Your task to perform on an android device: Clear the shopping cart on target. Add "asus zenbook" to the cart on target, then select checkout. Image 0: 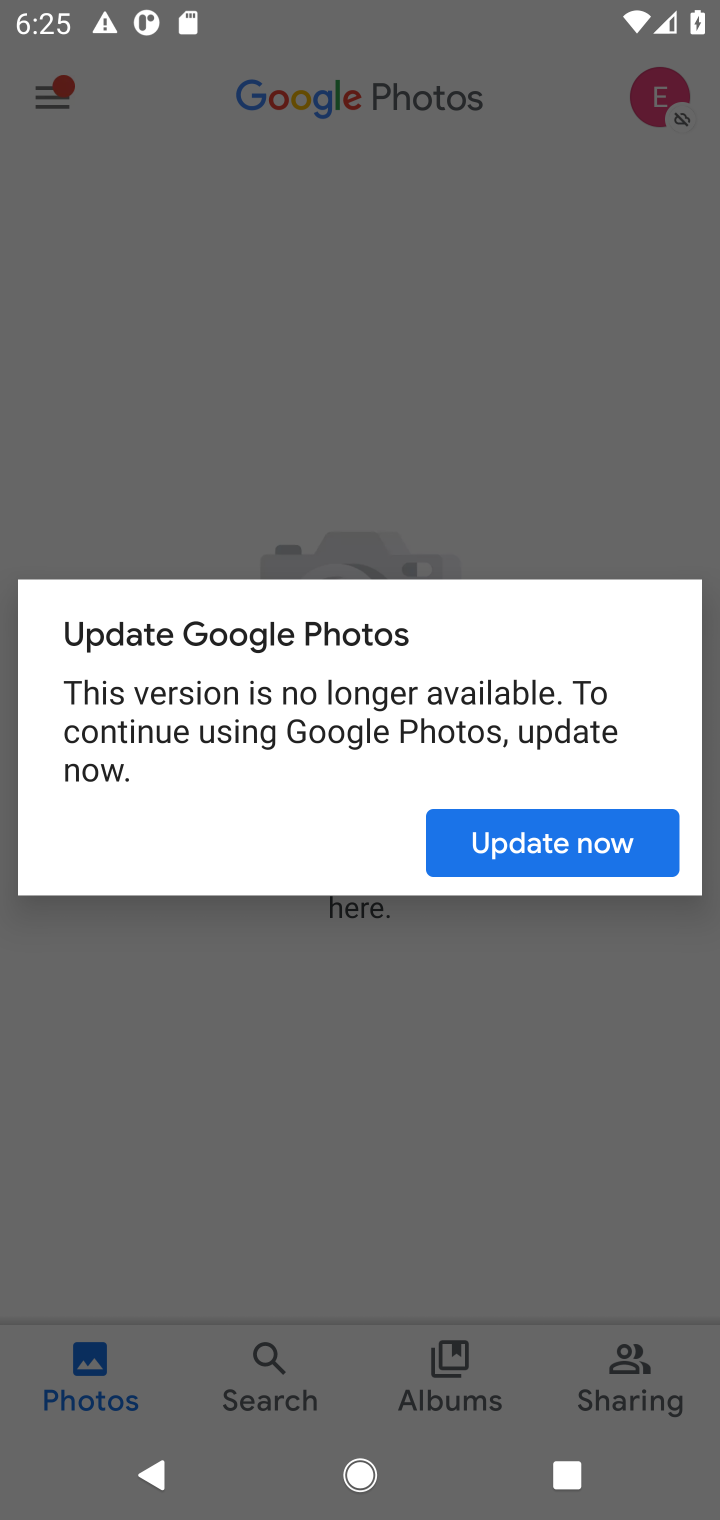
Step 0: press home button
Your task to perform on an android device: Clear the shopping cart on target. Add "asus zenbook" to the cart on target, then select checkout. Image 1: 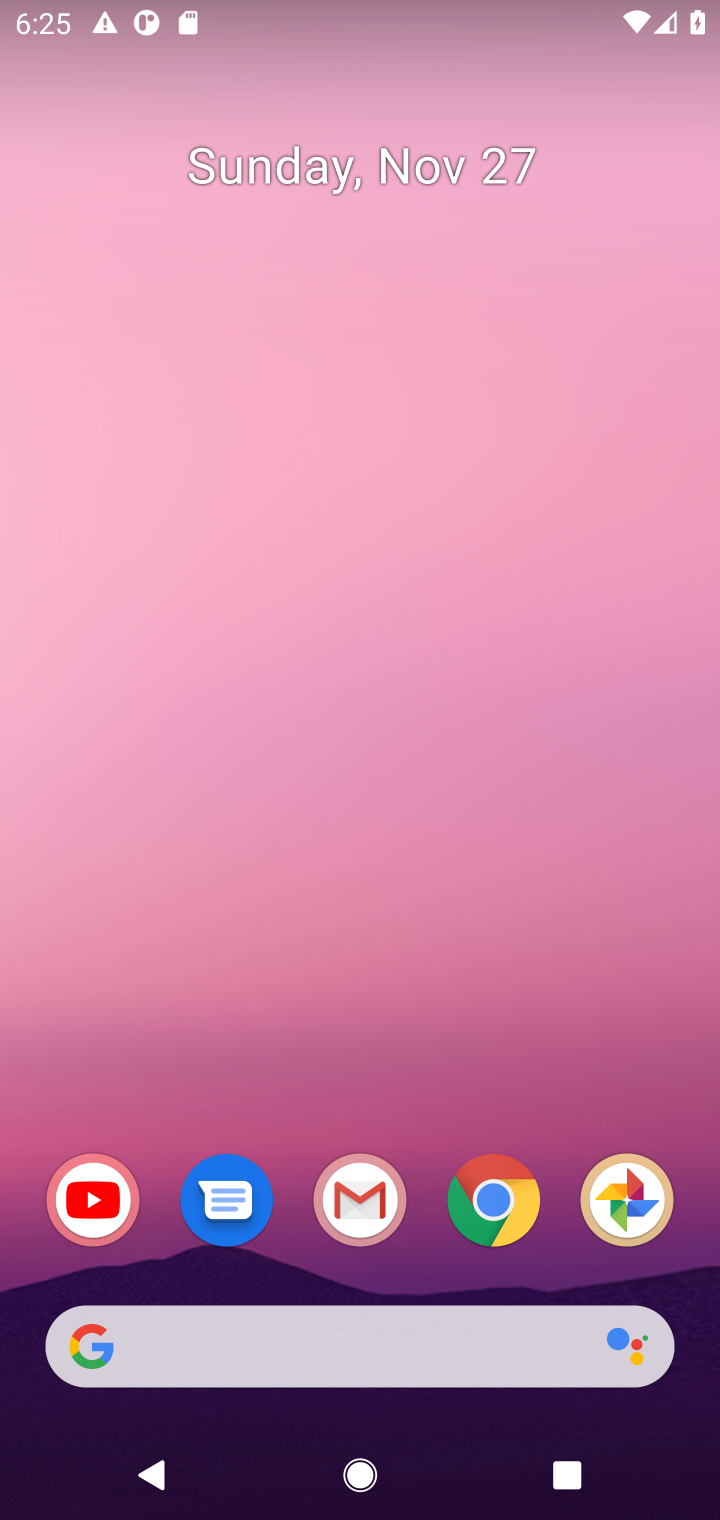
Step 1: click (499, 1209)
Your task to perform on an android device: Clear the shopping cart on target. Add "asus zenbook" to the cart on target, then select checkout. Image 2: 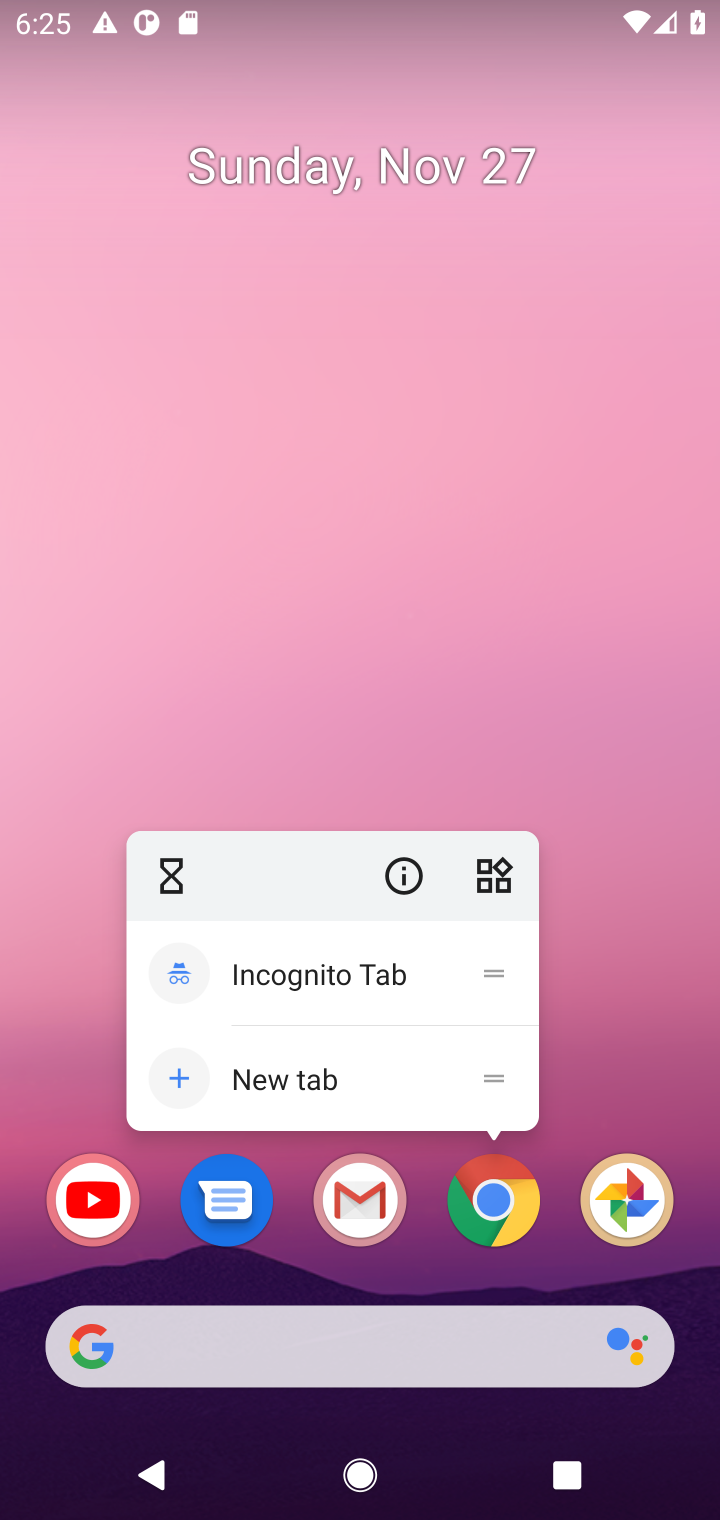
Step 2: click (499, 1209)
Your task to perform on an android device: Clear the shopping cart on target. Add "asus zenbook" to the cart on target, then select checkout. Image 3: 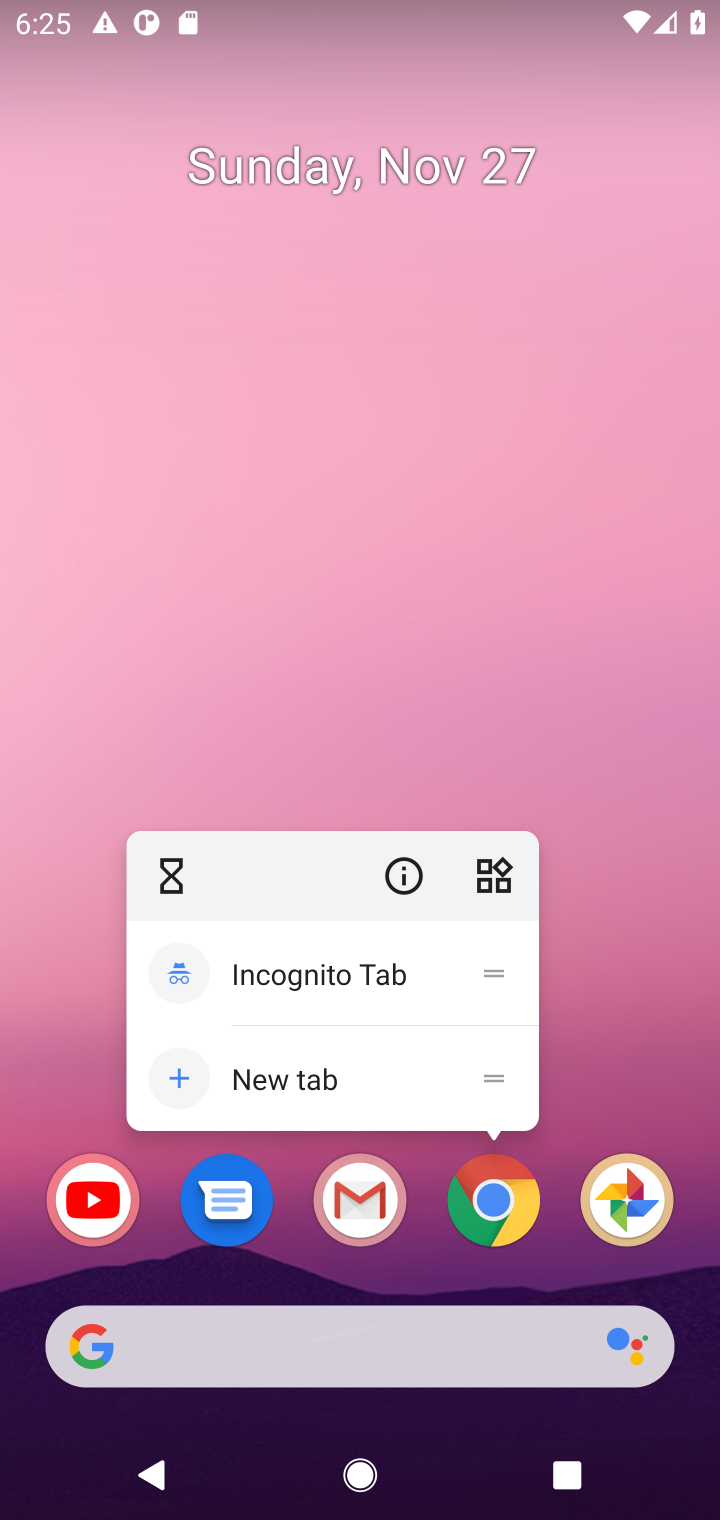
Step 3: click (499, 1209)
Your task to perform on an android device: Clear the shopping cart on target. Add "asus zenbook" to the cart on target, then select checkout. Image 4: 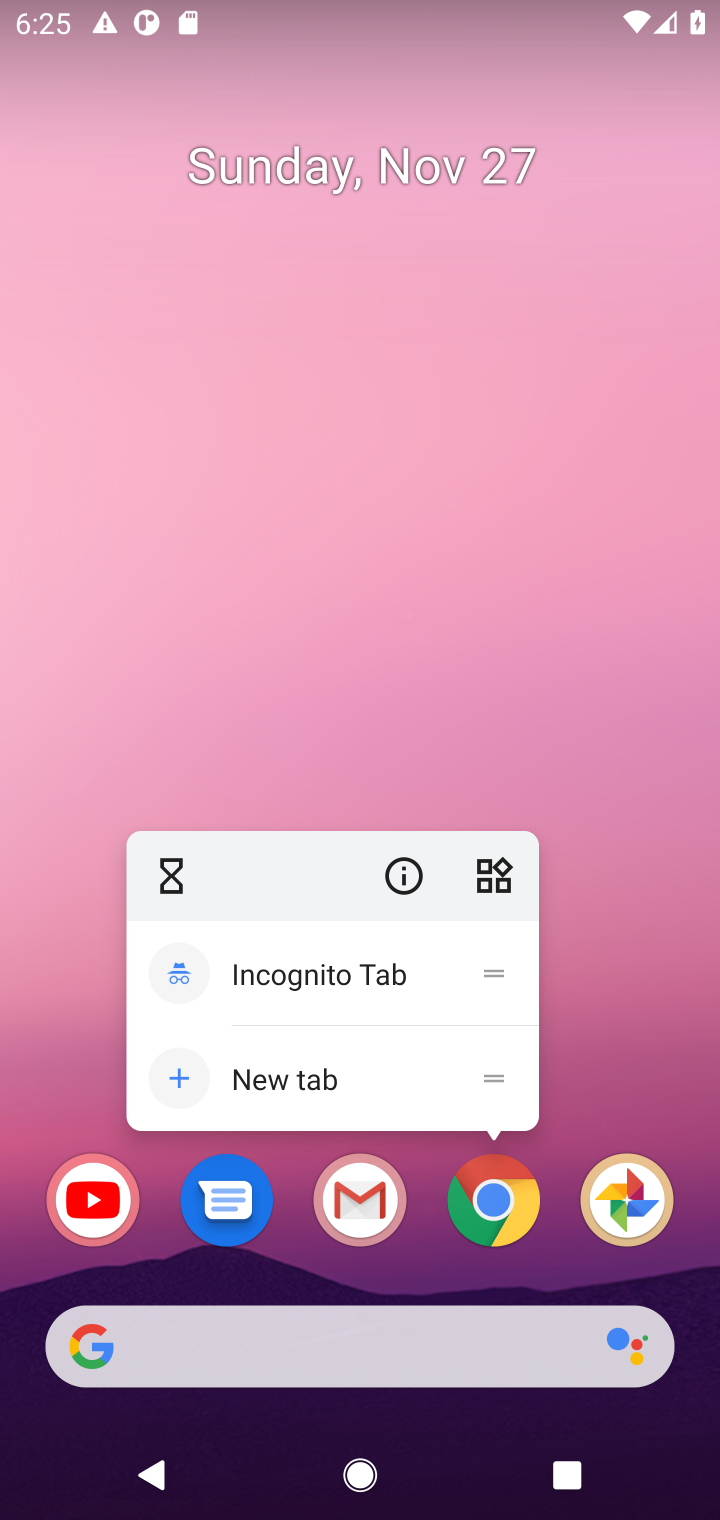
Step 4: click (499, 1209)
Your task to perform on an android device: Clear the shopping cart on target. Add "asus zenbook" to the cart on target, then select checkout. Image 5: 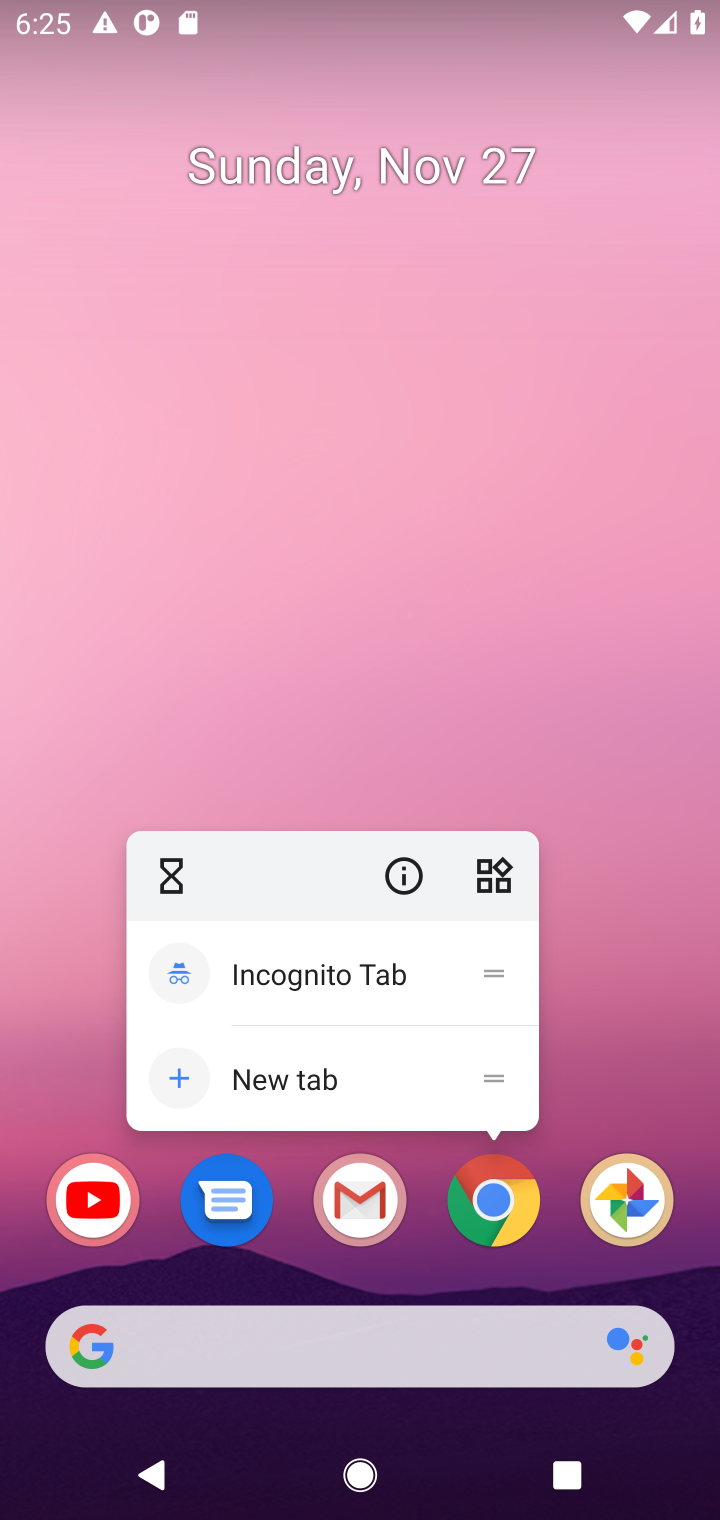
Step 5: click (499, 1209)
Your task to perform on an android device: Clear the shopping cart on target. Add "asus zenbook" to the cart on target, then select checkout. Image 6: 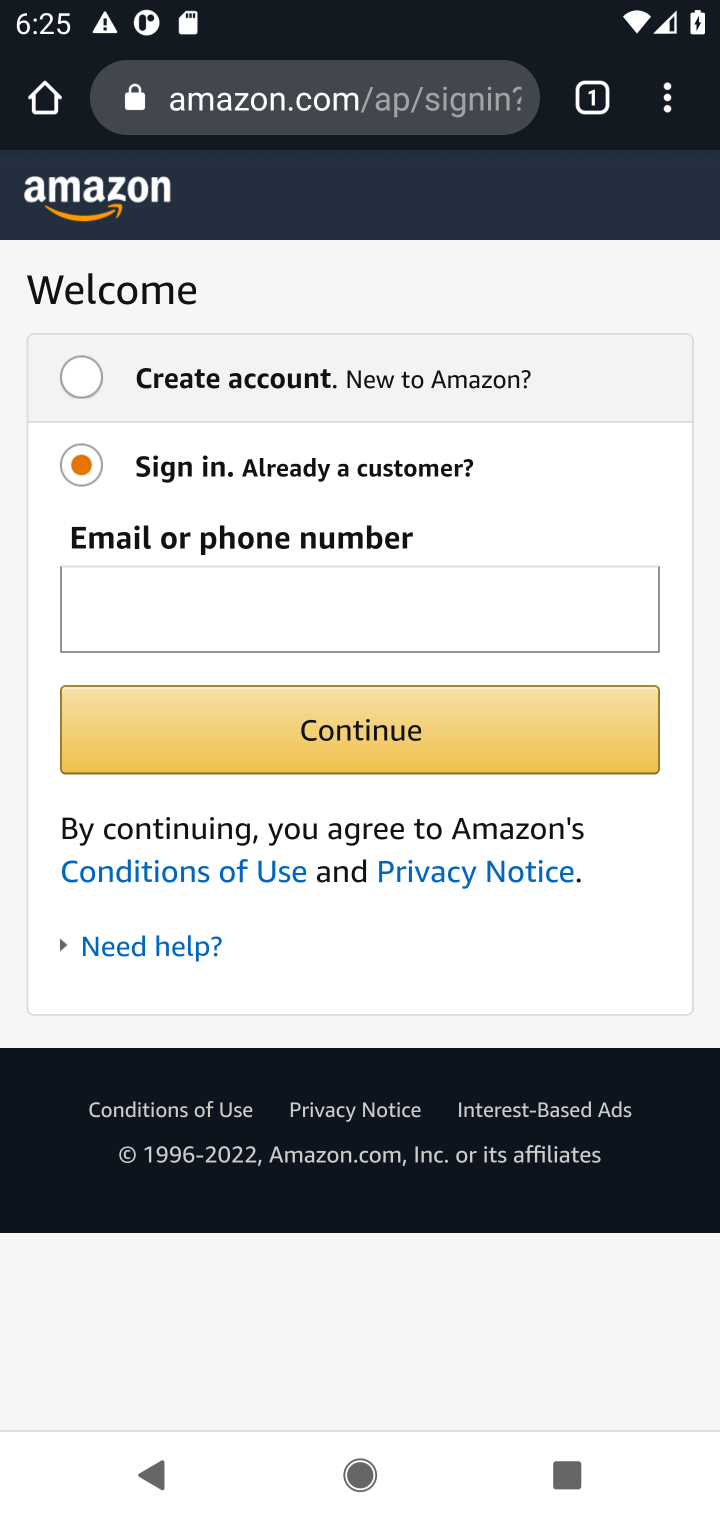
Step 6: click (256, 112)
Your task to perform on an android device: Clear the shopping cart on target. Add "asus zenbook" to the cart on target, then select checkout. Image 7: 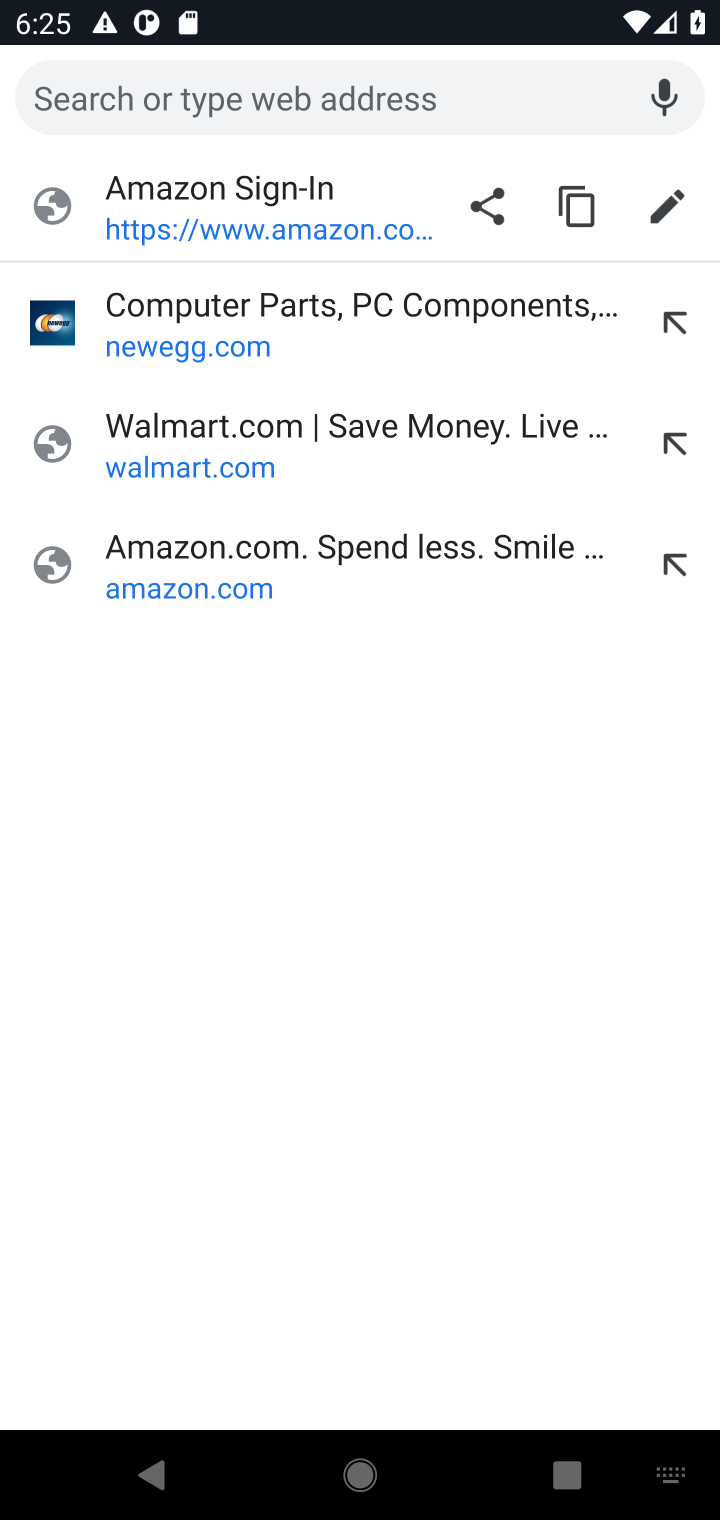
Step 7: type "target.com"
Your task to perform on an android device: Clear the shopping cart on target. Add "asus zenbook" to the cart on target, then select checkout. Image 8: 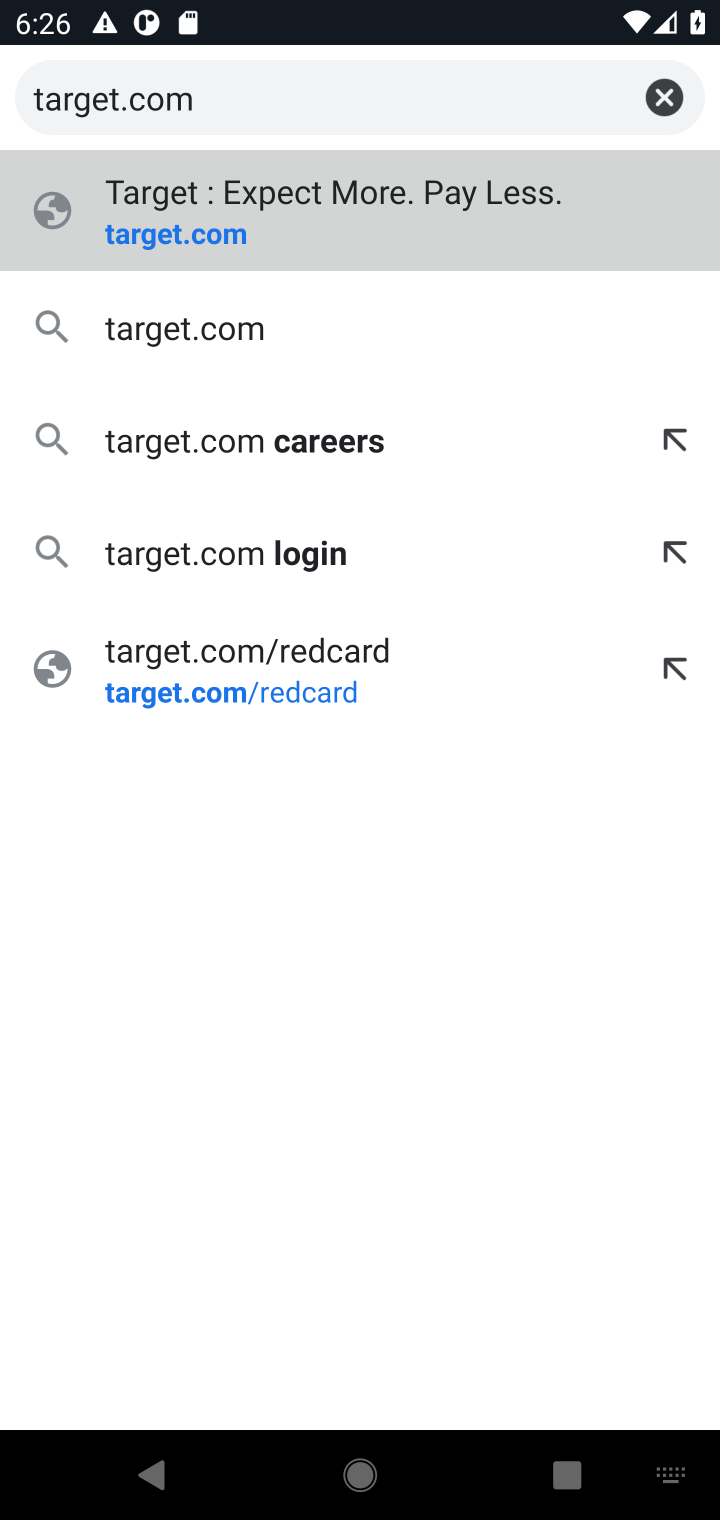
Step 8: click (191, 225)
Your task to perform on an android device: Clear the shopping cart on target. Add "asus zenbook" to the cart on target, then select checkout. Image 9: 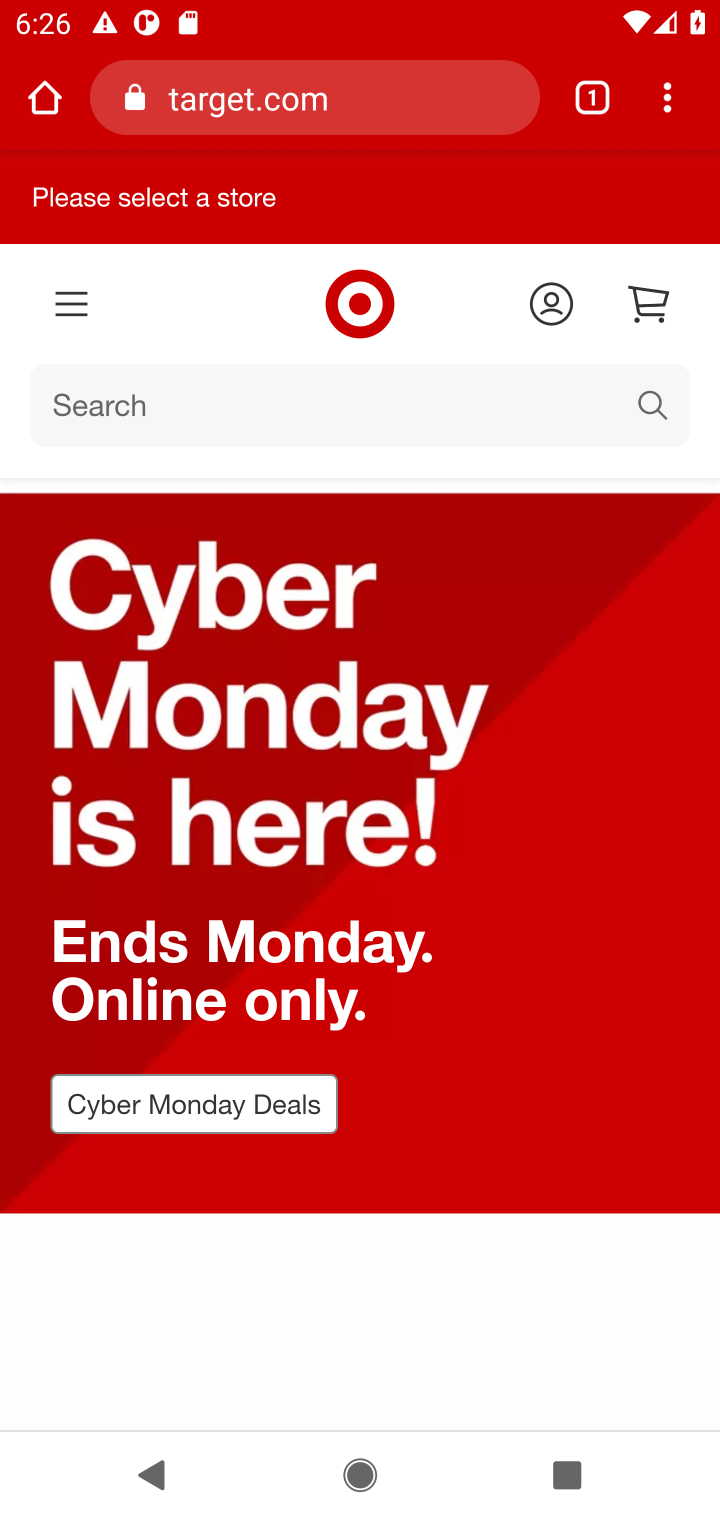
Step 9: click (646, 297)
Your task to perform on an android device: Clear the shopping cart on target. Add "asus zenbook" to the cart on target, then select checkout. Image 10: 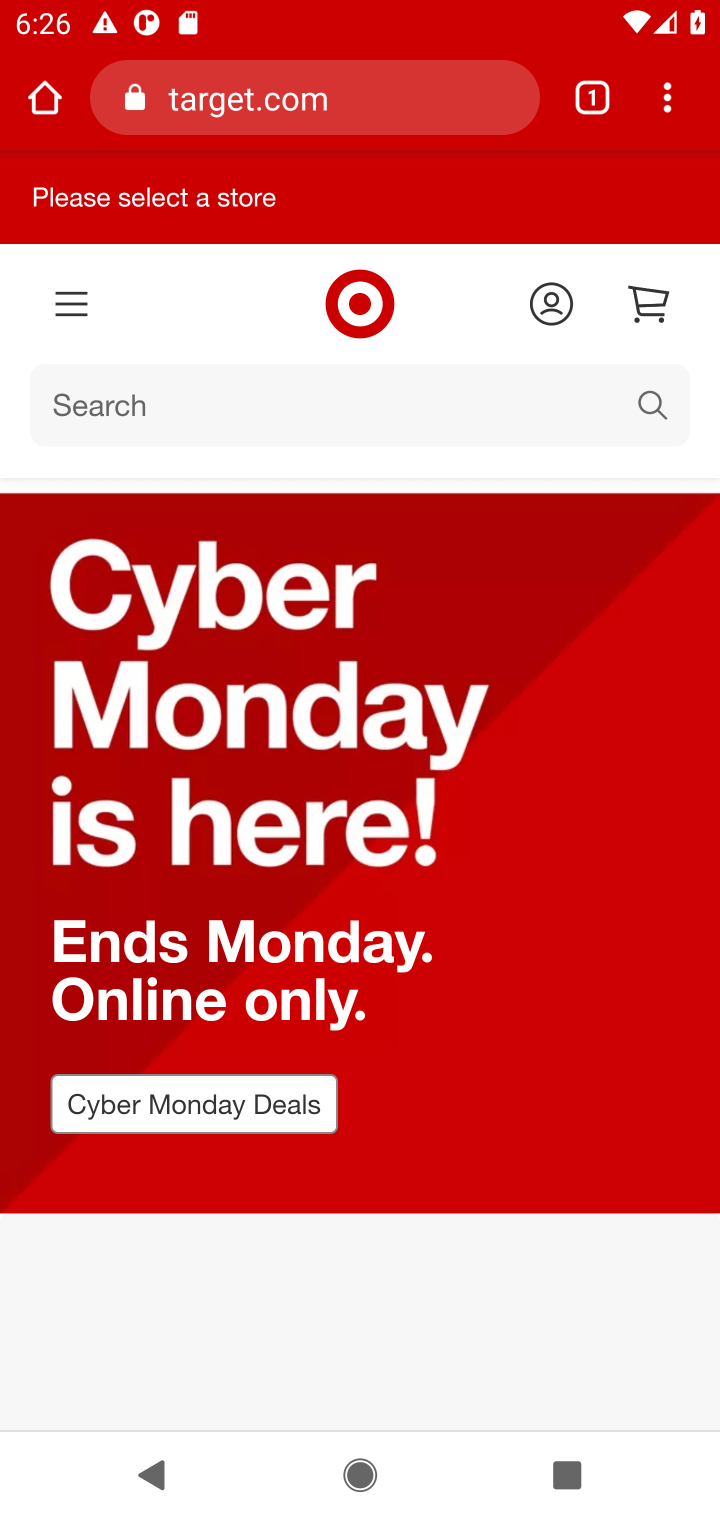
Step 10: click (646, 297)
Your task to perform on an android device: Clear the shopping cart on target. Add "asus zenbook" to the cart on target, then select checkout. Image 11: 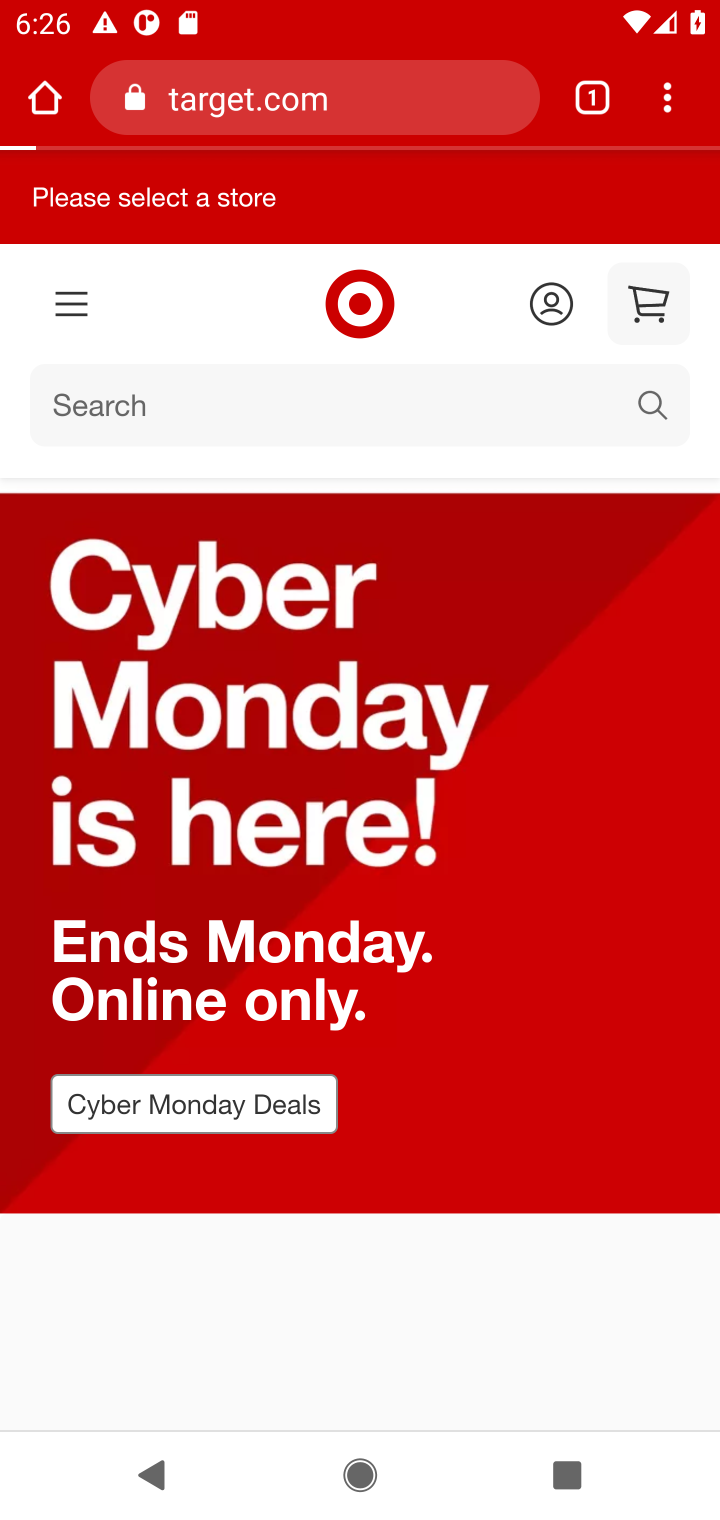
Step 11: click (649, 309)
Your task to perform on an android device: Clear the shopping cart on target. Add "asus zenbook" to the cart on target, then select checkout. Image 12: 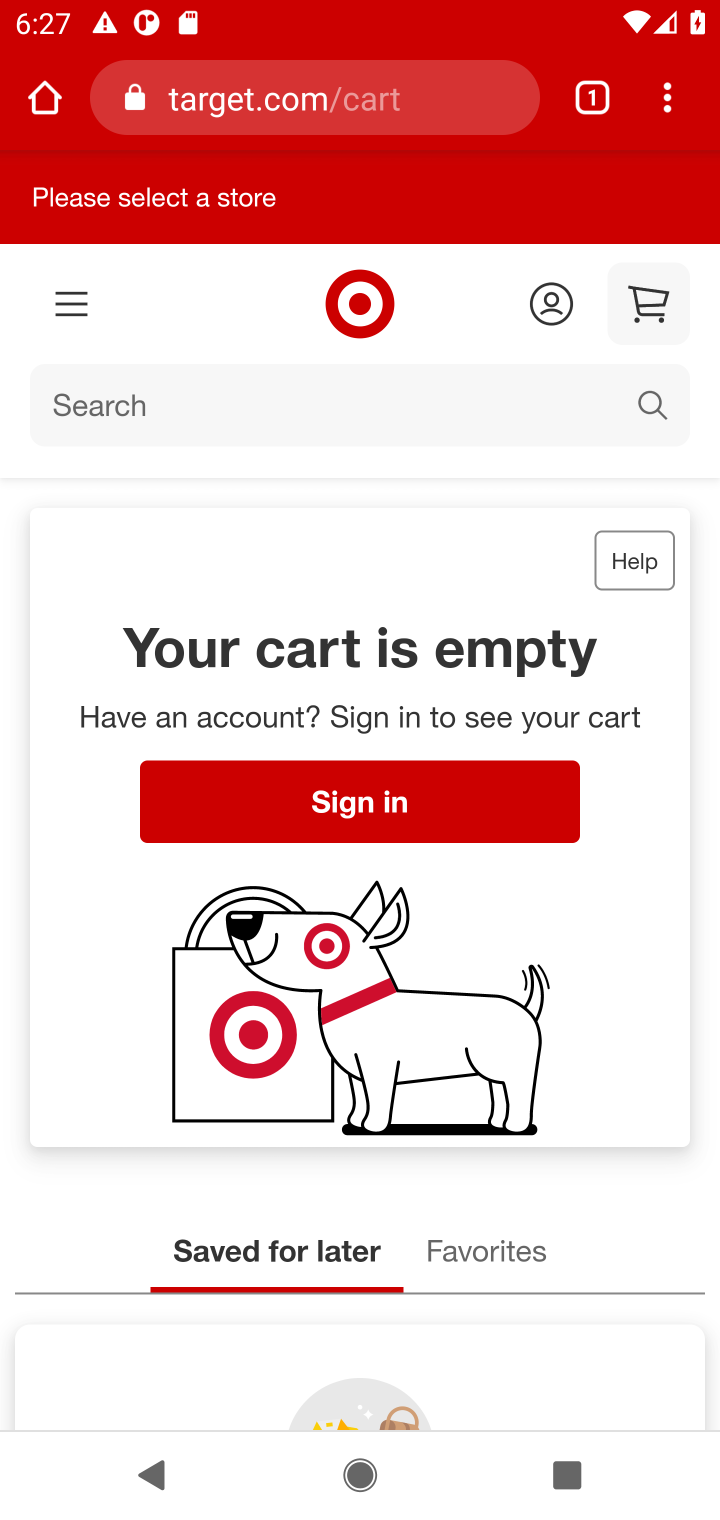
Step 12: click (643, 407)
Your task to perform on an android device: Clear the shopping cart on target. Add "asus zenbook" to the cart on target, then select checkout. Image 13: 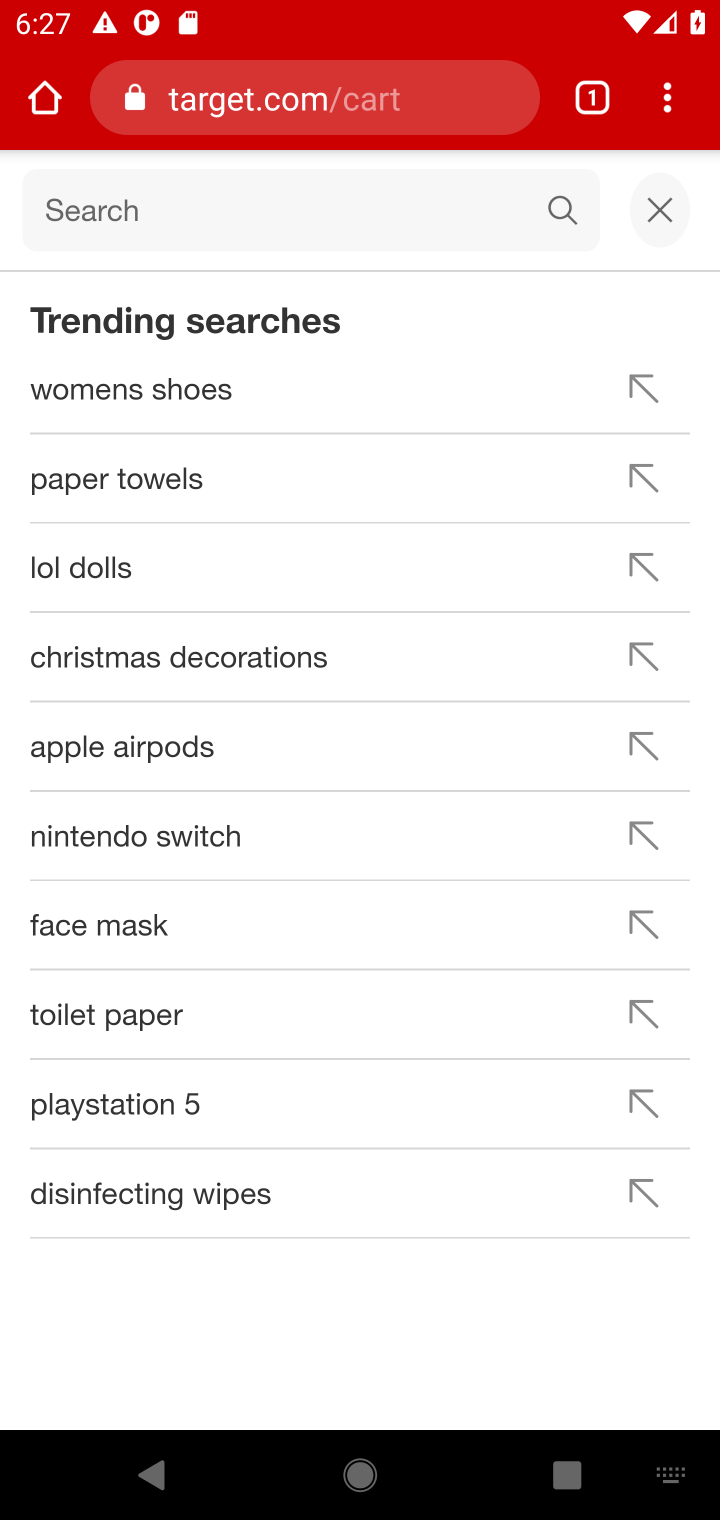
Step 13: type "asus zenbook"
Your task to perform on an android device: Clear the shopping cart on target. Add "asus zenbook" to the cart on target, then select checkout. Image 14: 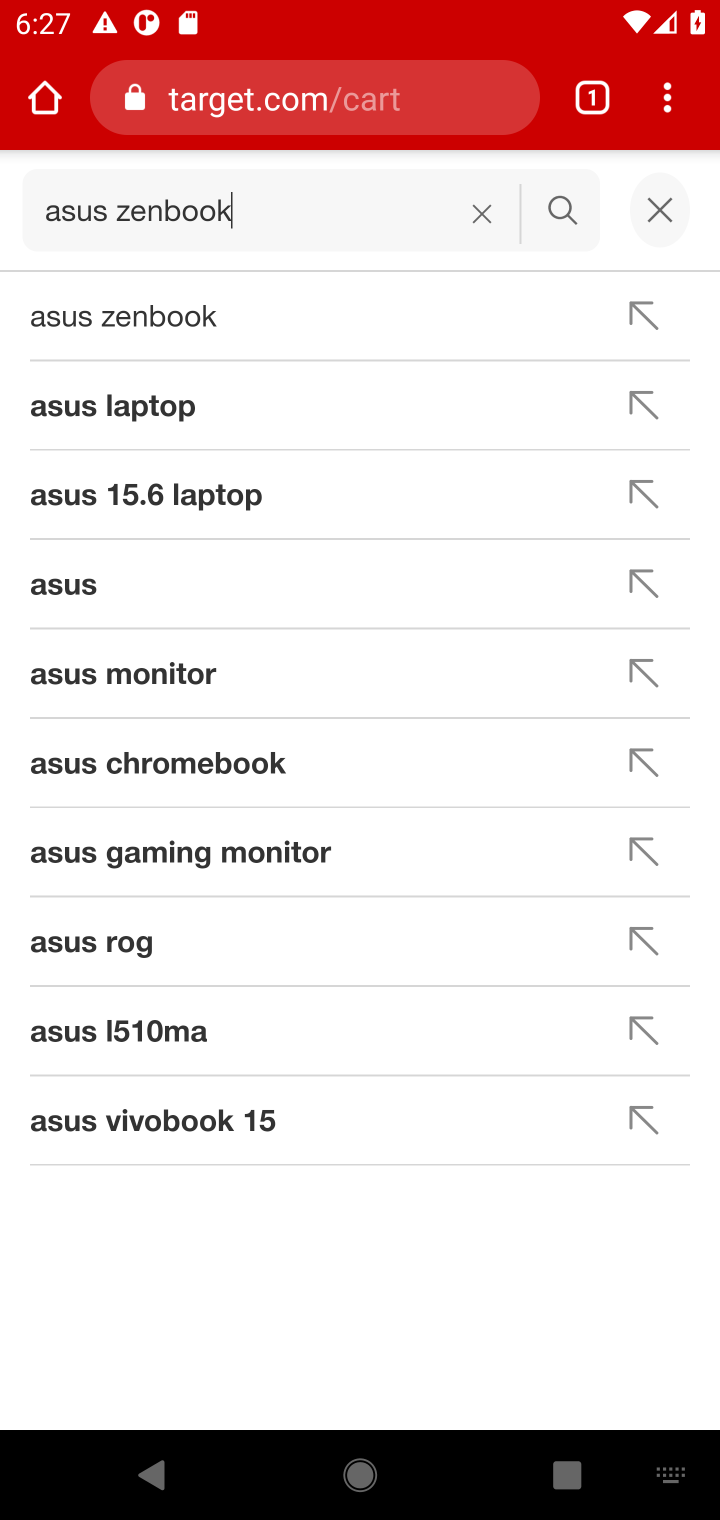
Step 14: click (140, 329)
Your task to perform on an android device: Clear the shopping cart on target. Add "asus zenbook" to the cart on target, then select checkout. Image 15: 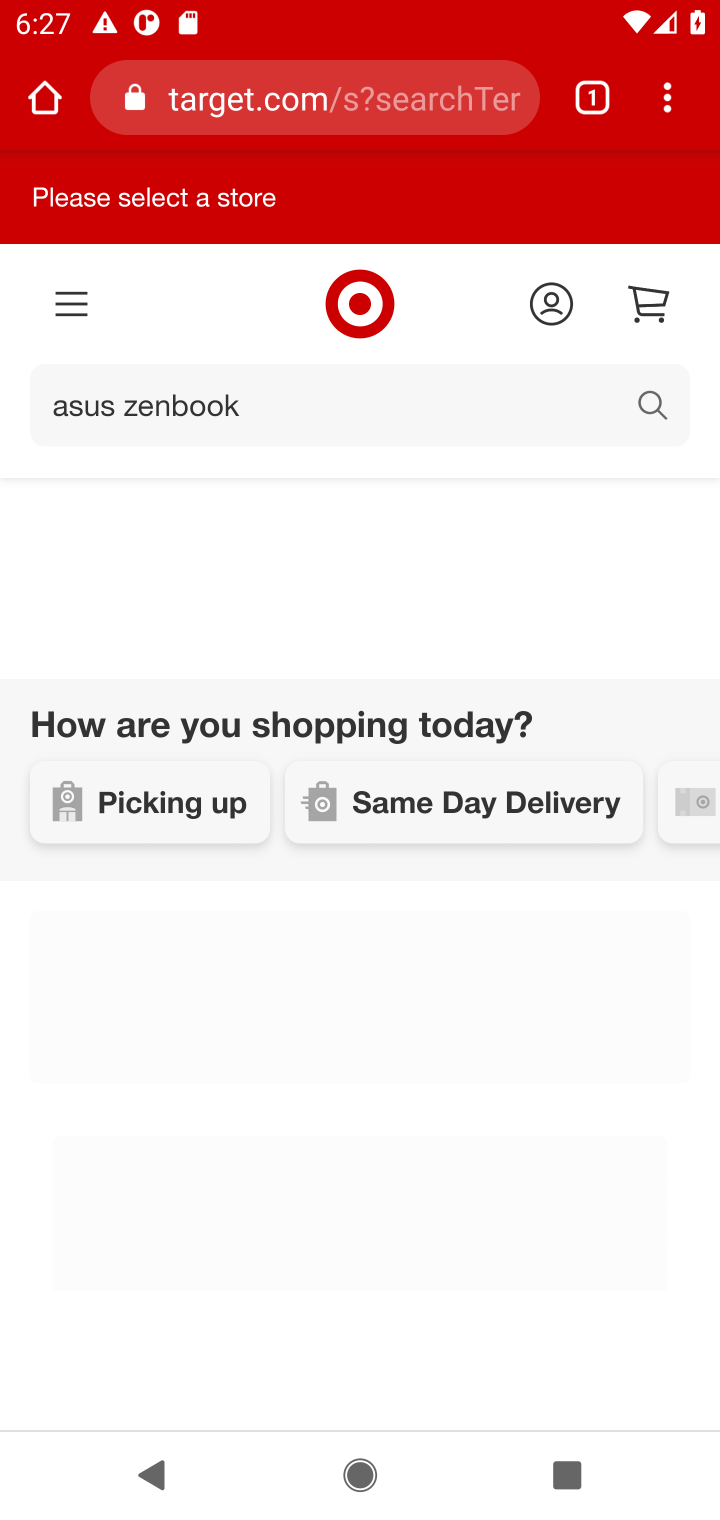
Step 15: drag from (353, 992) to (328, 597)
Your task to perform on an android device: Clear the shopping cart on target. Add "asus zenbook" to the cart on target, then select checkout. Image 16: 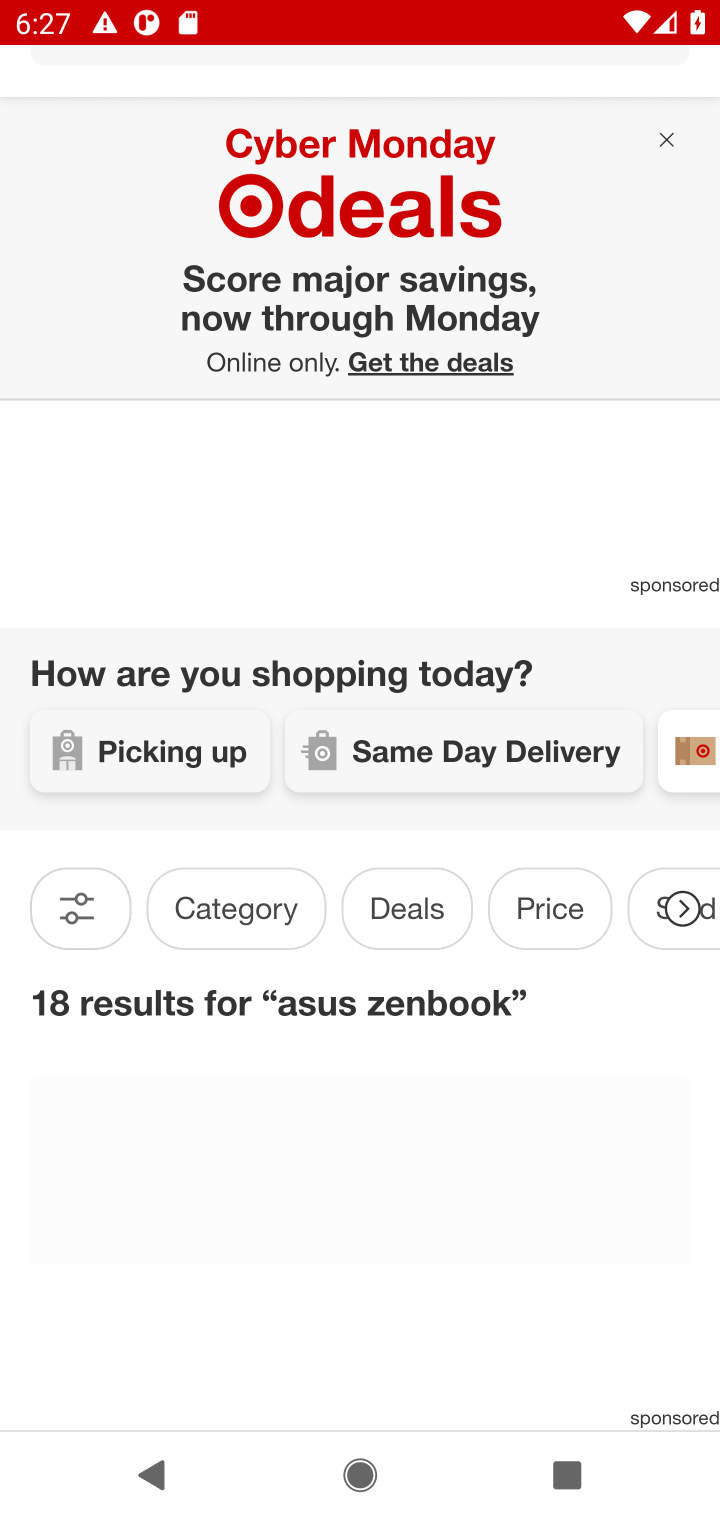
Step 16: drag from (307, 1056) to (311, 400)
Your task to perform on an android device: Clear the shopping cart on target. Add "asus zenbook" to the cart on target, then select checkout. Image 17: 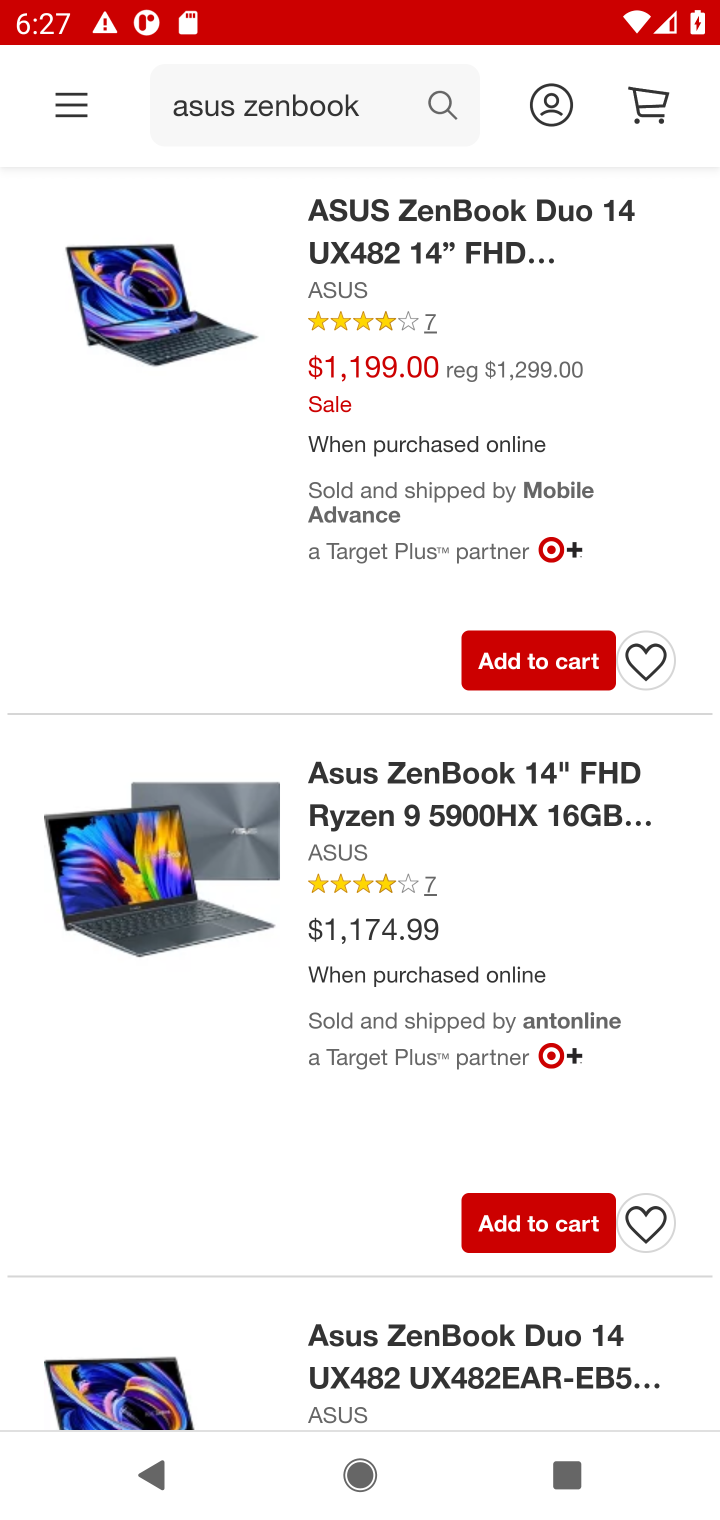
Step 17: drag from (348, 616) to (346, 721)
Your task to perform on an android device: Clear the shopping cart on target. Add "asus zenbook" to the cart on target, then select checkout. Image 18: 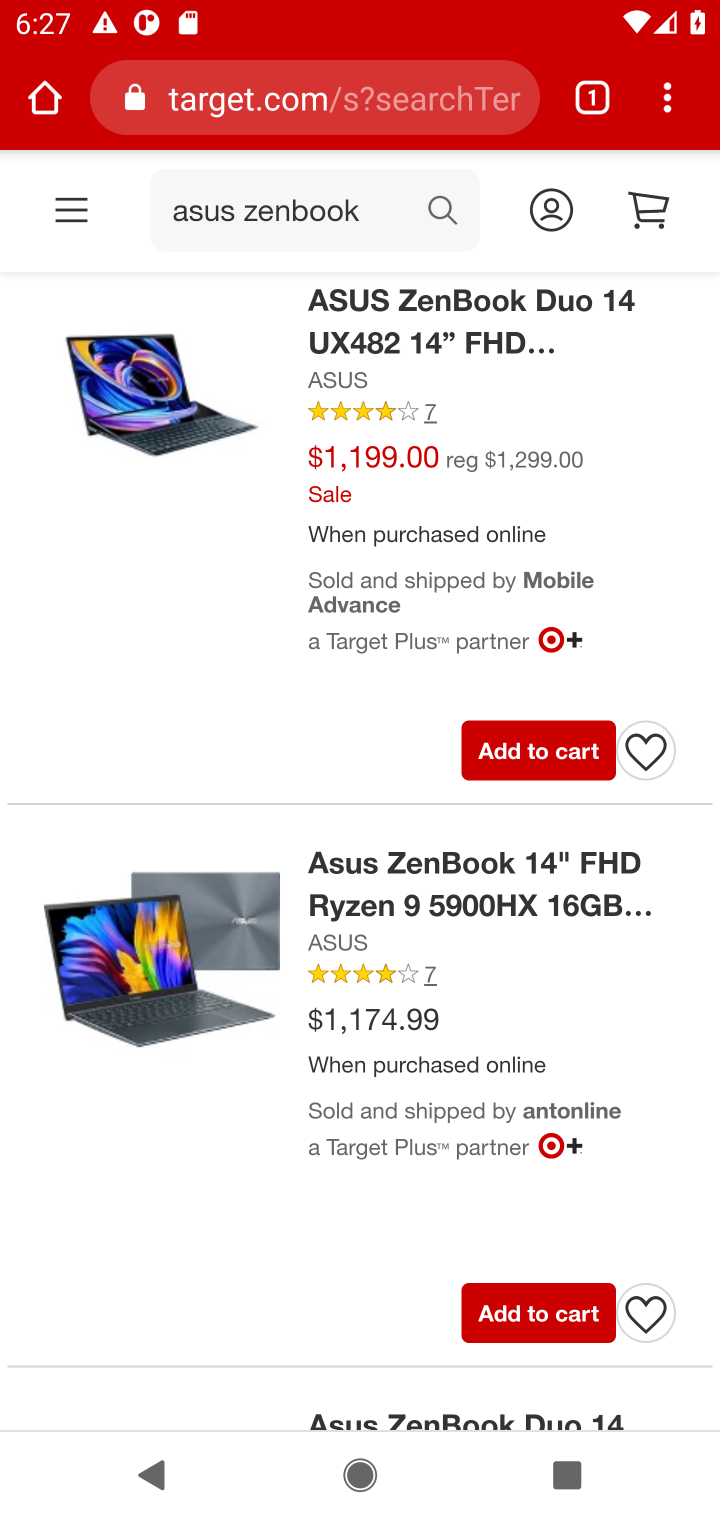
Step 18: click (536, 749)
Your task to perform on an android device: Clear the shopping cart on target. Add "asus zenbook" to the cart on target, then select checkout. Image 19: 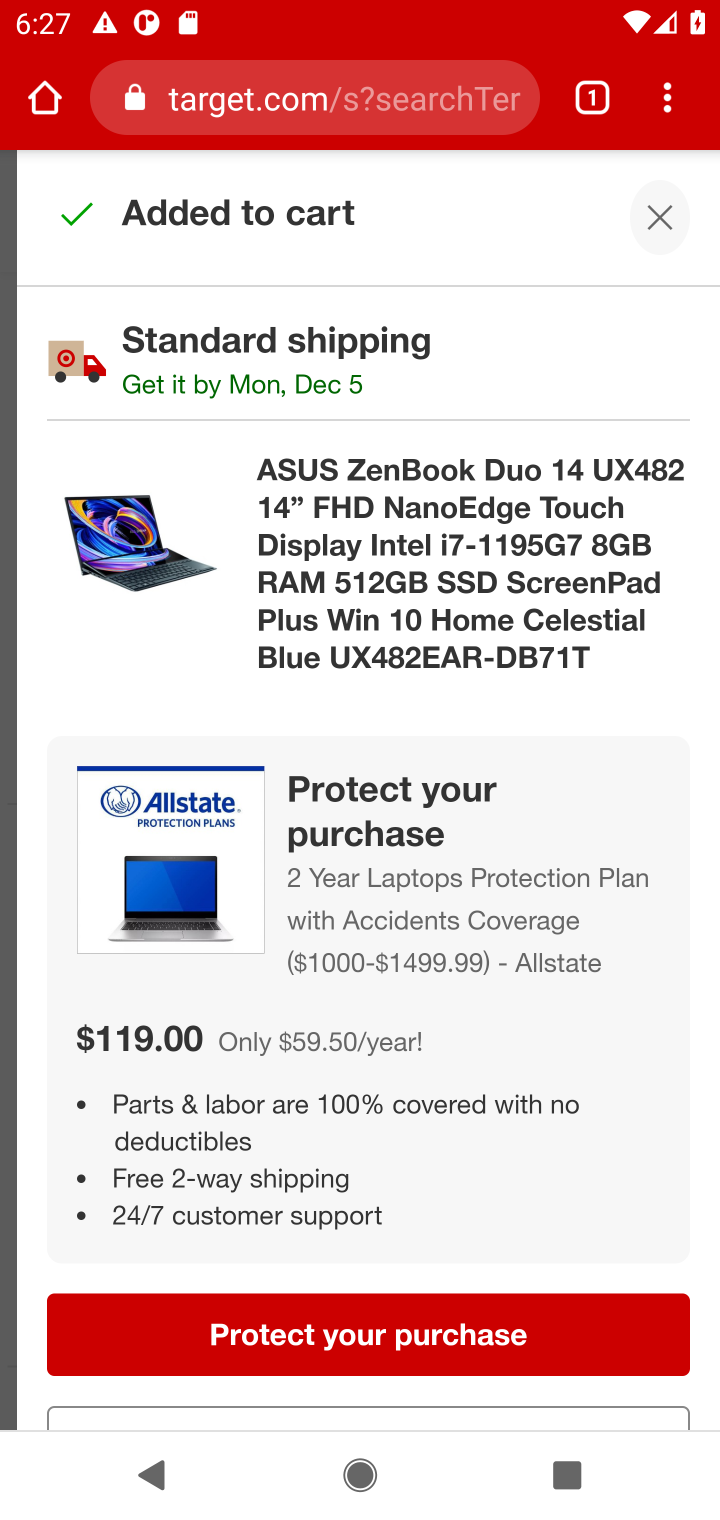
Step 19: click (655, 220)
Your task to perform on an android device: Clear the shopping cart on target. Add "asus zenbook" to the cart on target, then select checkout. Image 20: 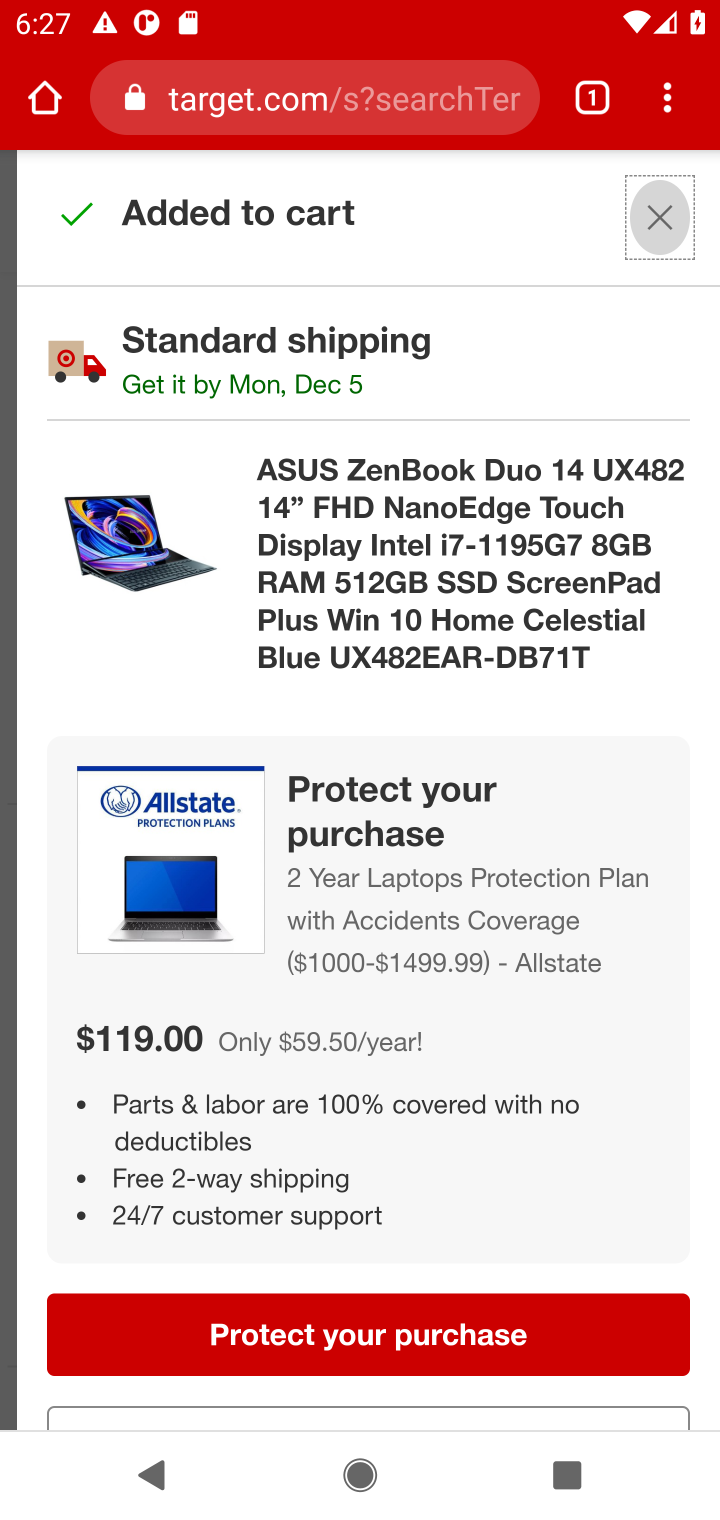
Step 20: drag from (564, 811) to (553, 578)
Your task to perform on an android device: Clear the shopping cart on target. Add "asus zenbook" to the cart on target, then select checkout. Image 21: 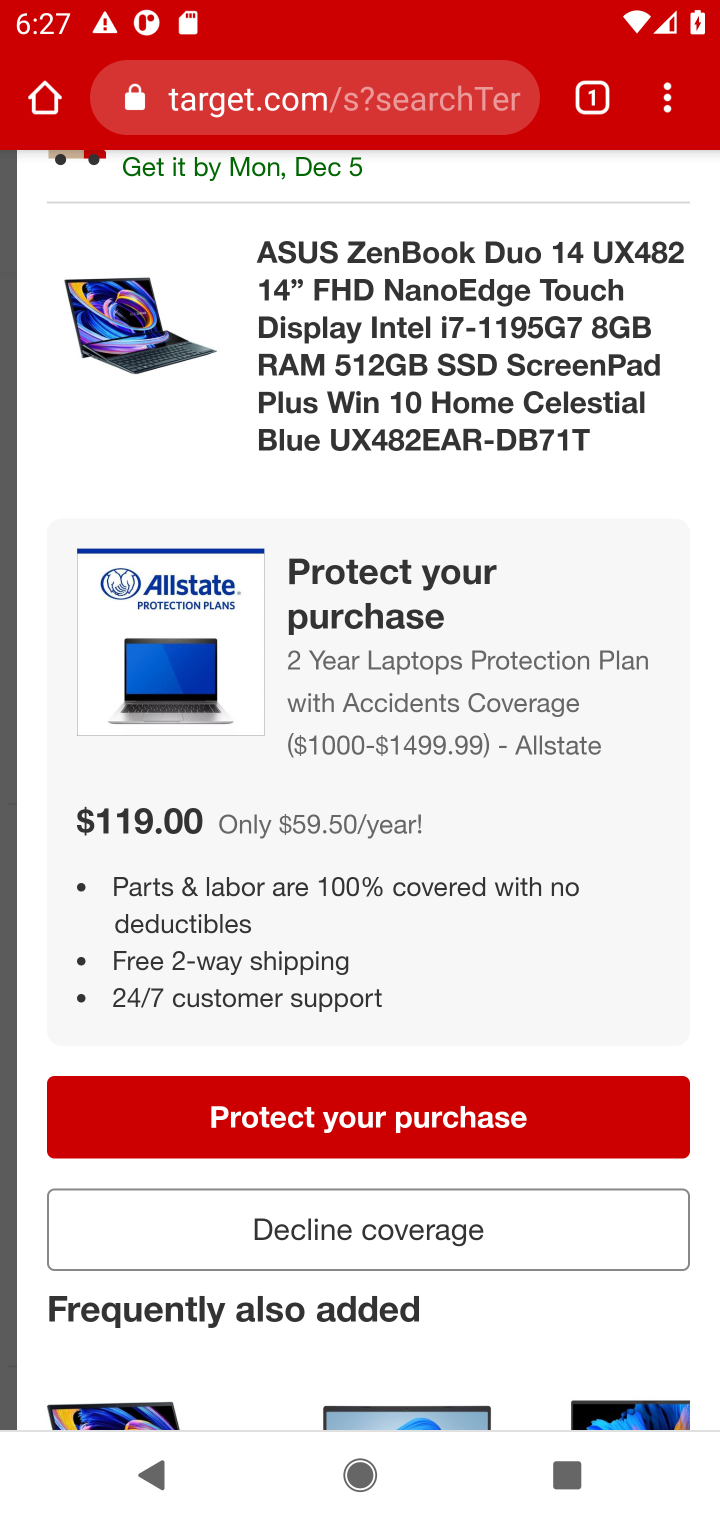
Step 21: drag from (553, 576) to (551, 777)
Your task to perform on an android device: Clear the shopping cart on target. Add "asus zenbook" to the cart on target, then select checkout. Image 22: 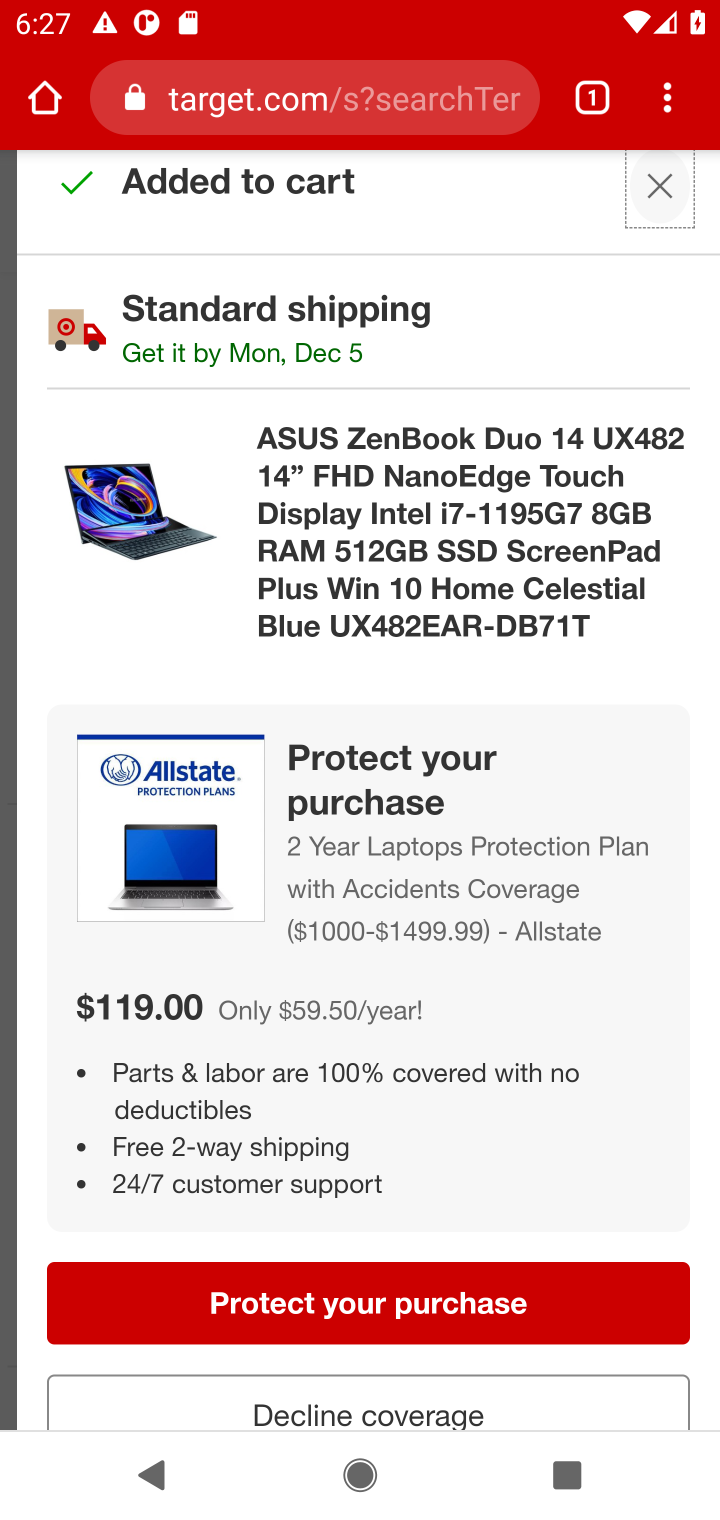
Step 22: click (661, 195)
Your task to perform on an android device: Clear the shopping cart on target. Add "asus zenbook" to the cart on target, then select checkout. Image 23: 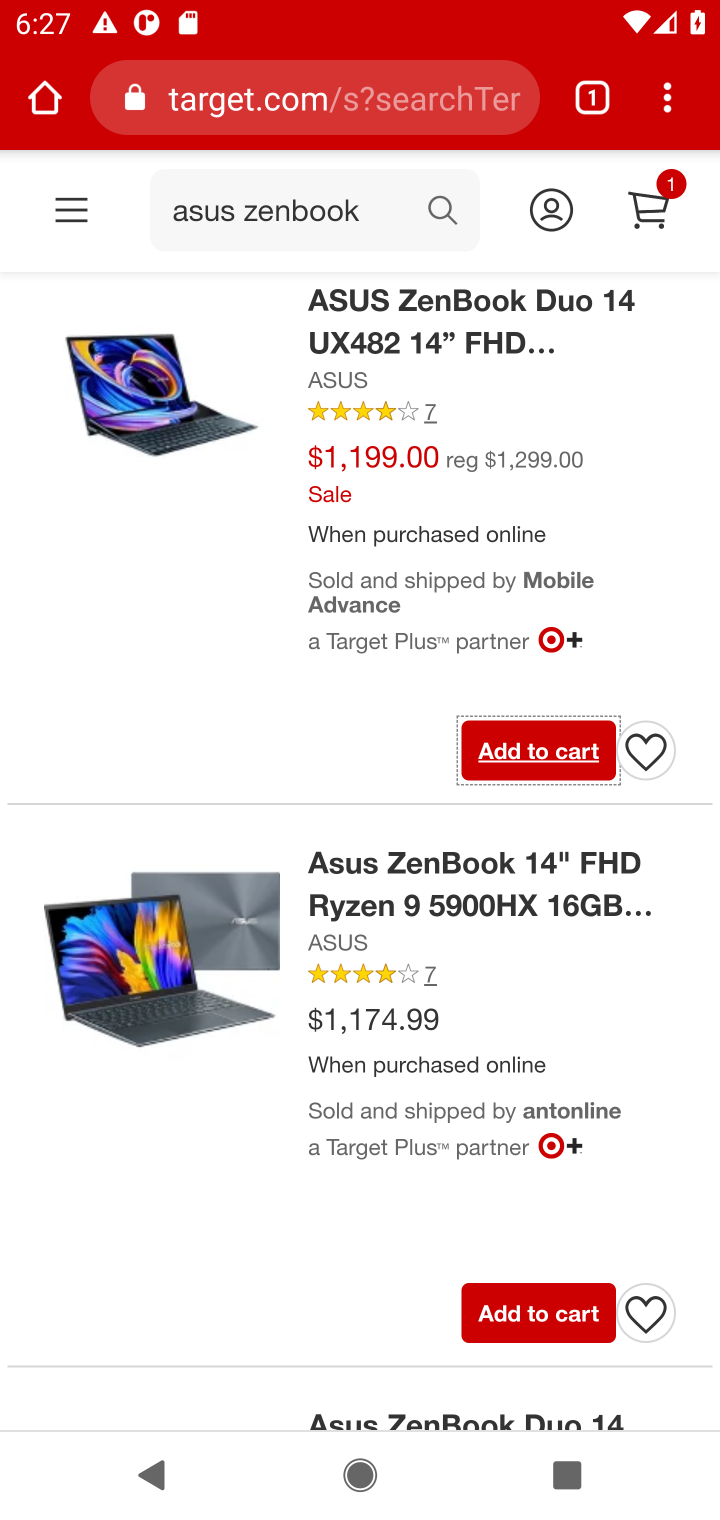
Step 23: click (668, 200)
Your task to perform on an android device: Clear the shopping cart on target. Add "asus zenbook" to the cart on target, then select checkout. Image 24: 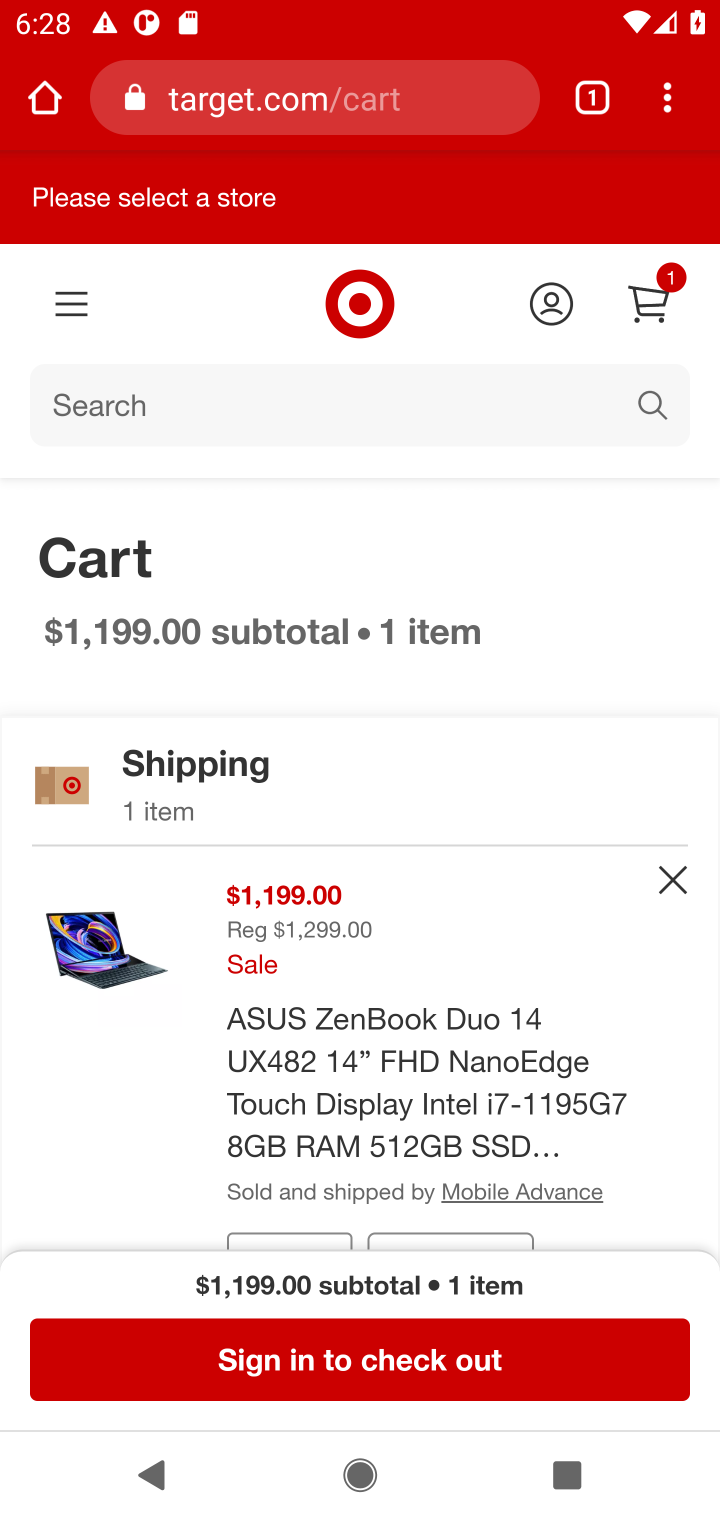
Step 24: click (396, 1362)
Your task to perform on an android device: Clear the shopping cart on target. Add "asus zenbook" to the cart on target, then select checkout. Image 25: 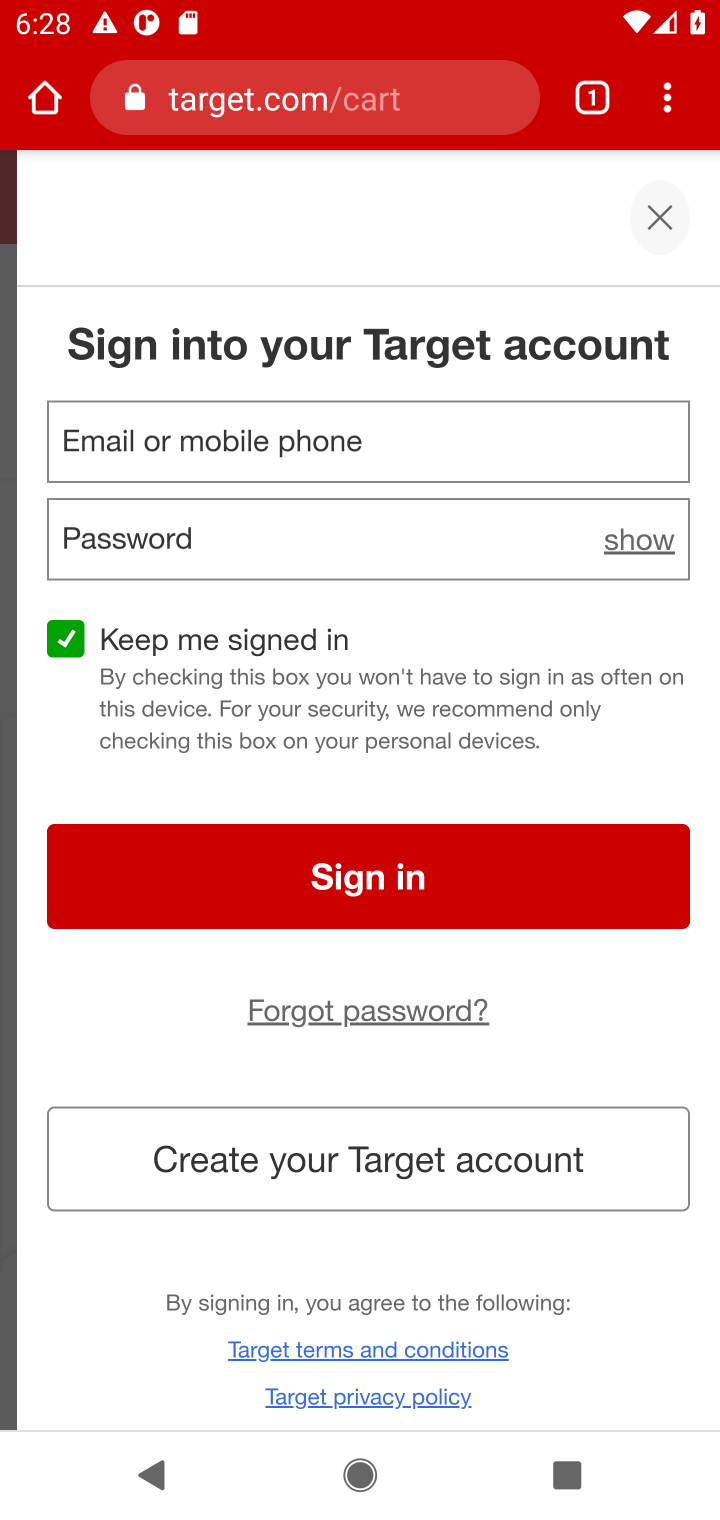
Step 25: task complete